Your task to perform on an android device: Search for vegetarian restaurants on Maps Image 0: 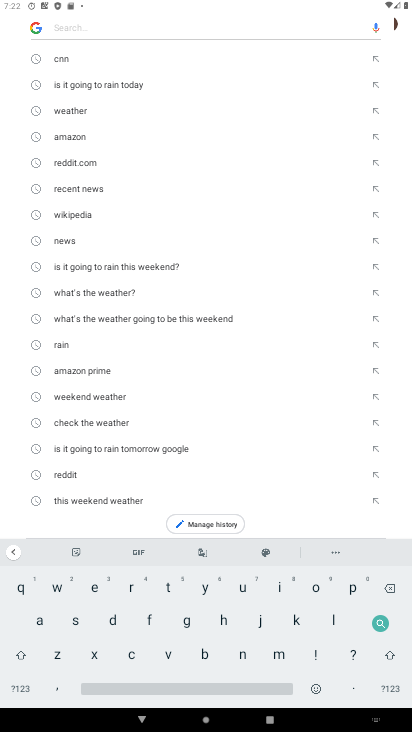
Step 0: press home button
Your task to perform on an android device: Search for vegetarian restaurants on Maps Image 1: 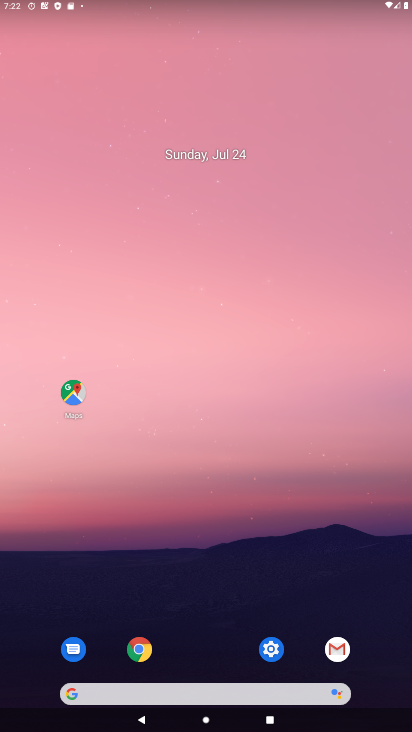
Step 1: click (63, 403)
Your task to perform on an android device: Search for vegetarian restaurants on Maps Image 2: 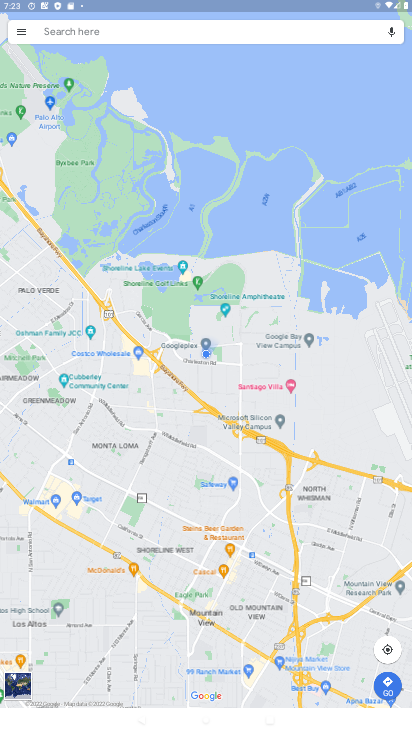
Step 2: click (142, 27)
Your task to perform on an android device: Search for vegetarian restaurants on Maps Image 3: 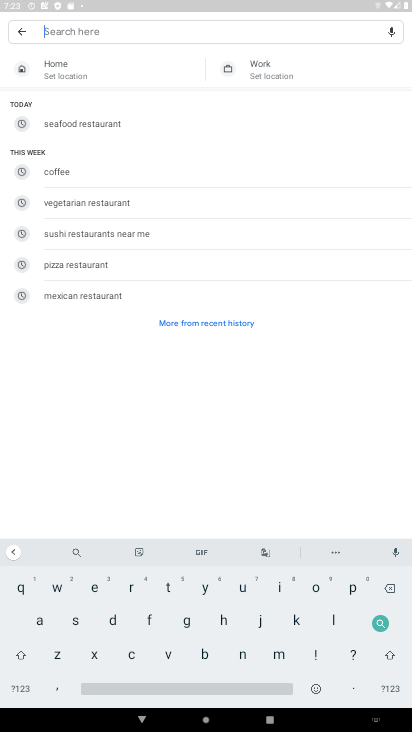
Step 3: click (113, 194)
Your task to perform on an android device: Search for vegetarian restaurants on Maps Image 4: 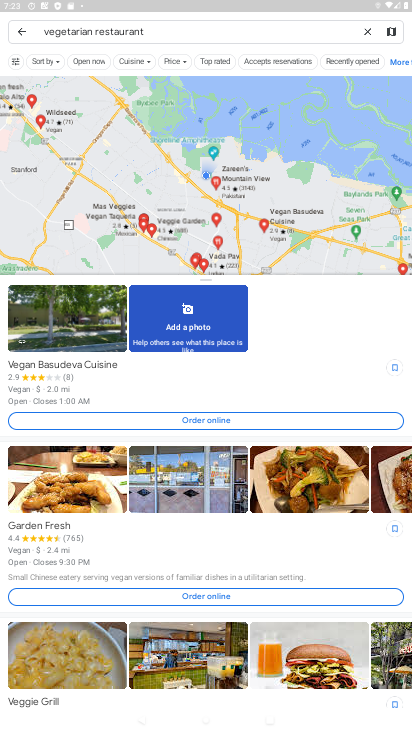
Step 4: task complete